Your task to perform on an android device: open app "Instagram" Image 0: 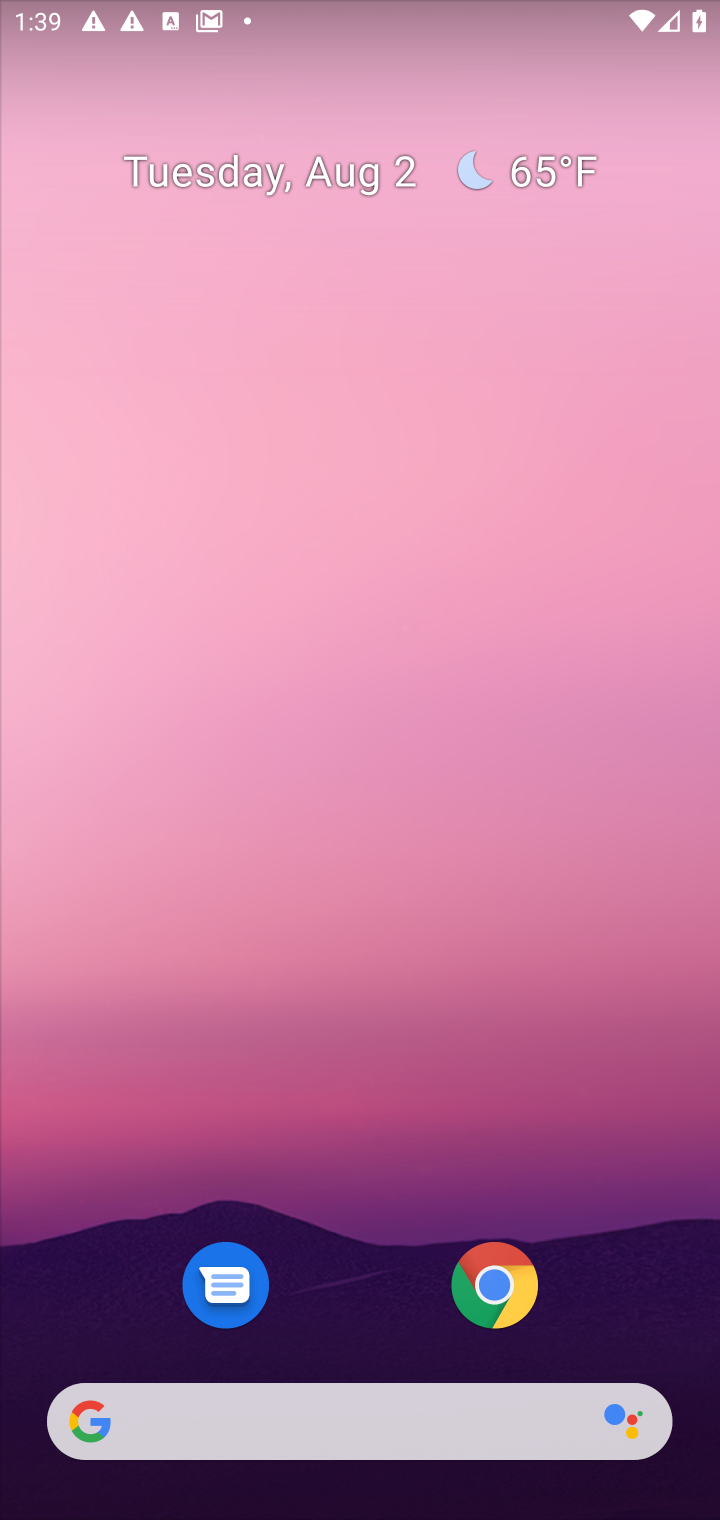
Step 0: press home button
Your task to perform on an android device: open app "Instagram" Image 1: 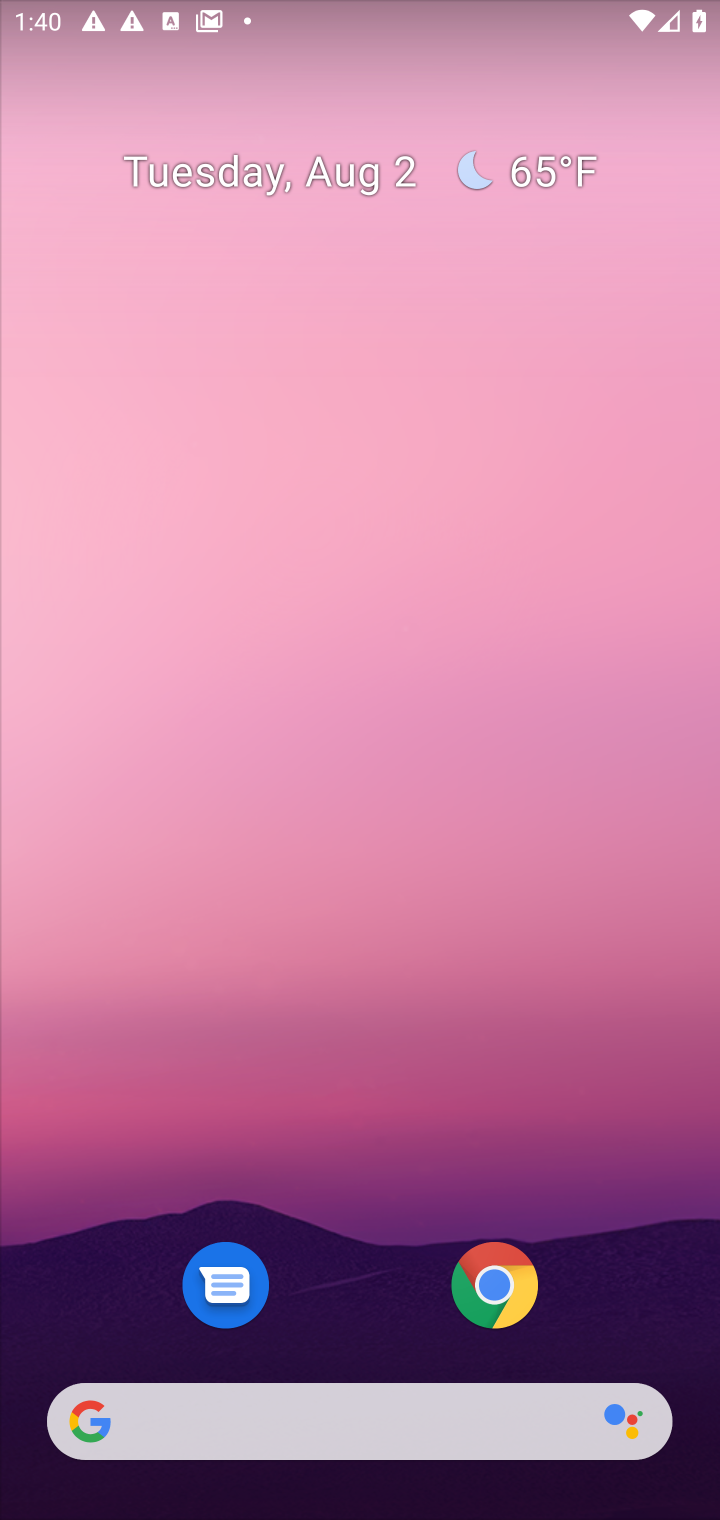
Step 1: drag from (399, 1279) to (492, 139)
Your task to perform on an android device: open app "Instagram" Image 2: 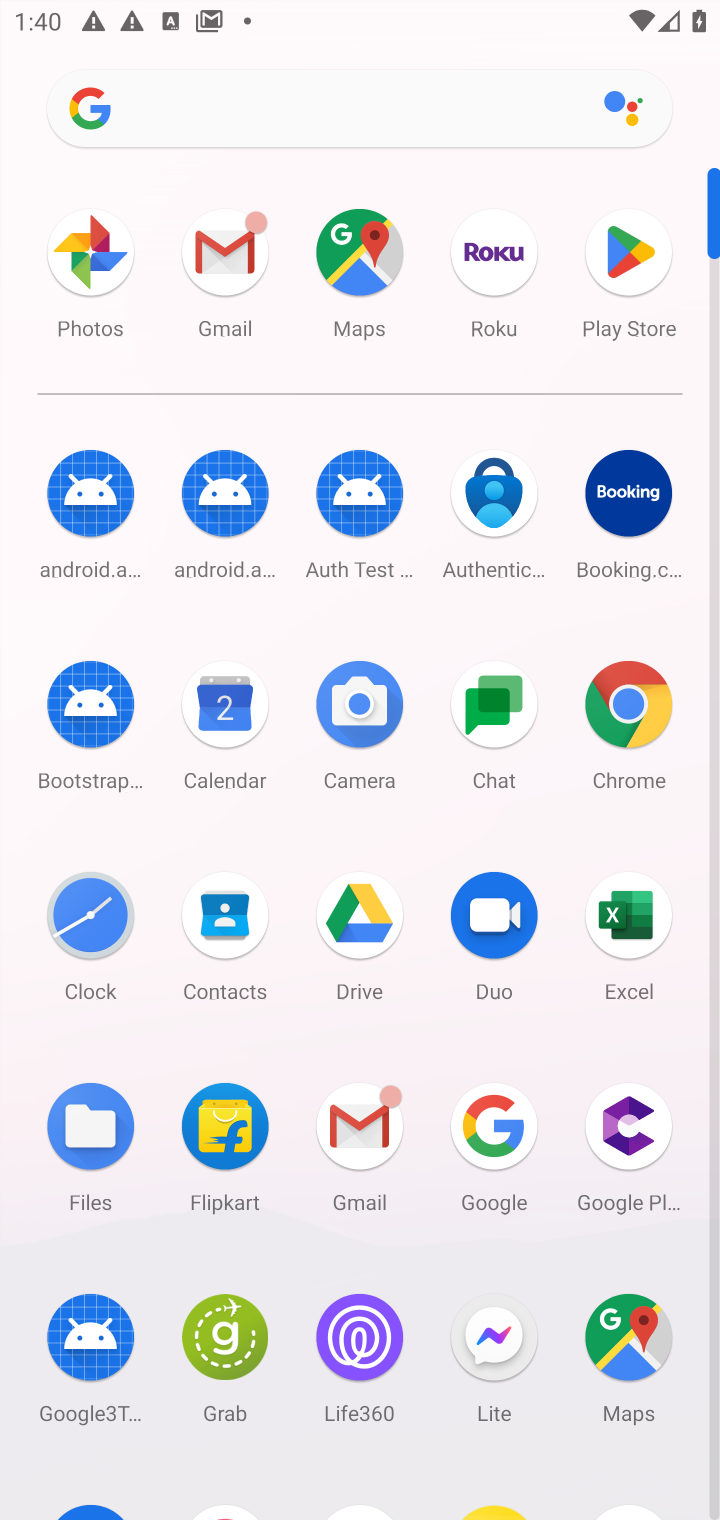
Step 2: drag from (434, 1217) to (516, 478)
Your task to perform on an android device: open app "Instagram" Image 3: 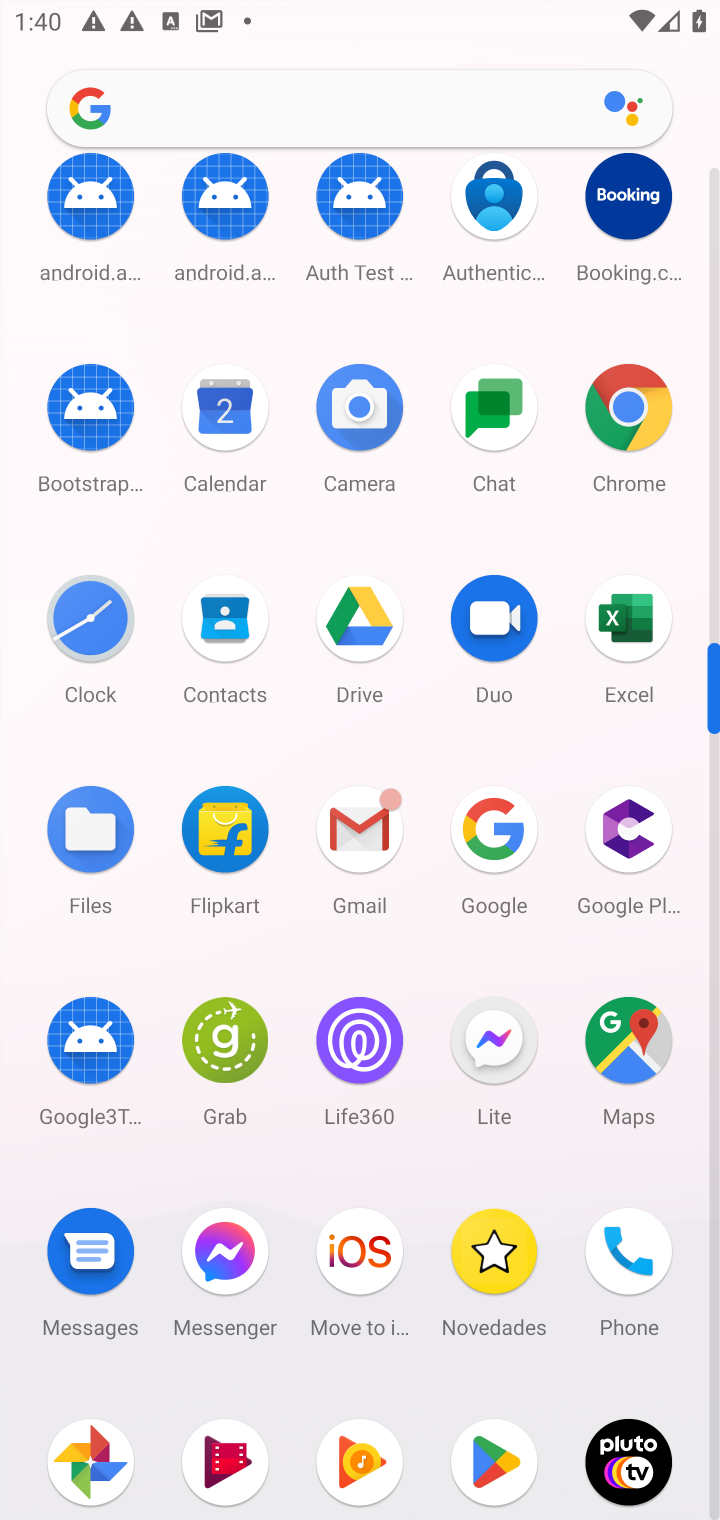
Step 3: click (499, 1462)
Your task to perform on an android device: open app "Instagram" Image 4: 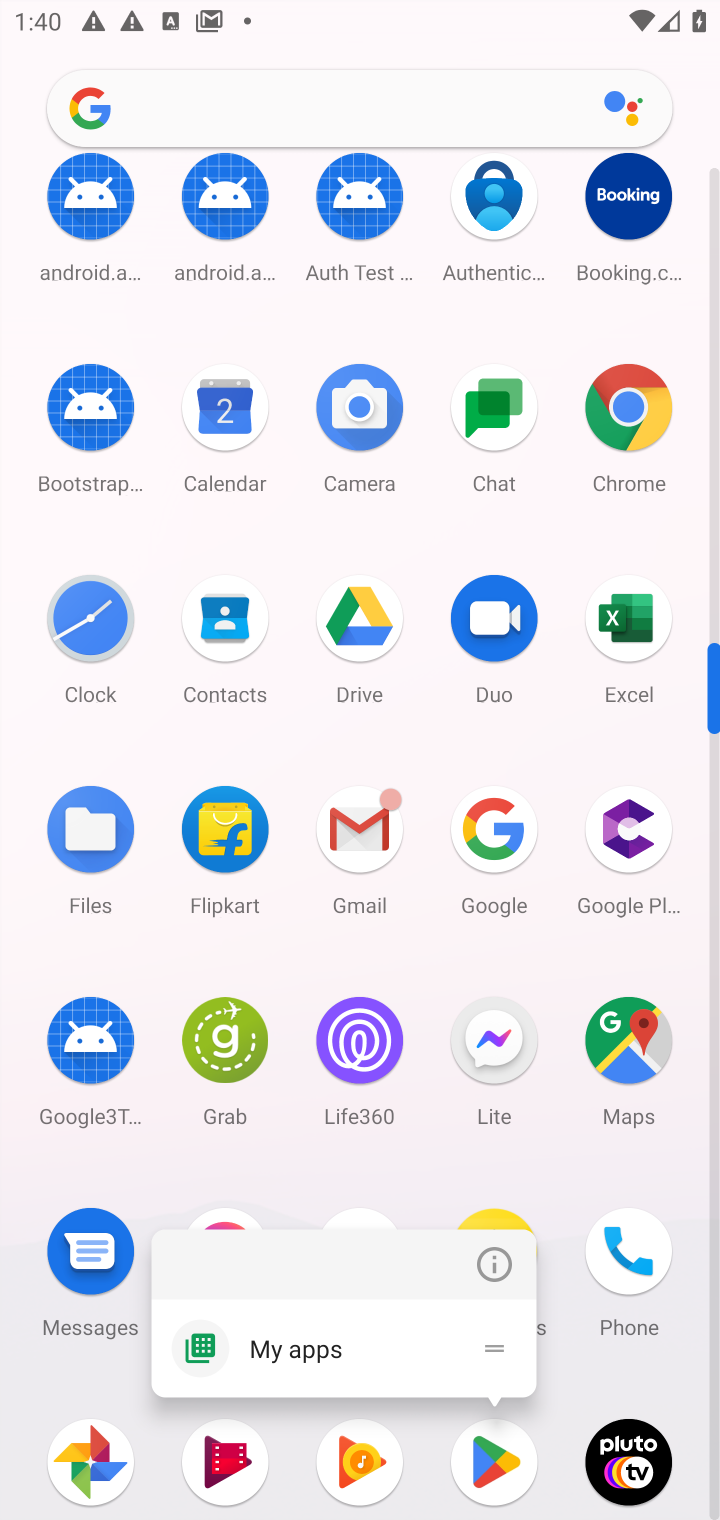
Step 4: click (490, 1476)
Your task to perform on an android device: open app "Instagram" Image 5: 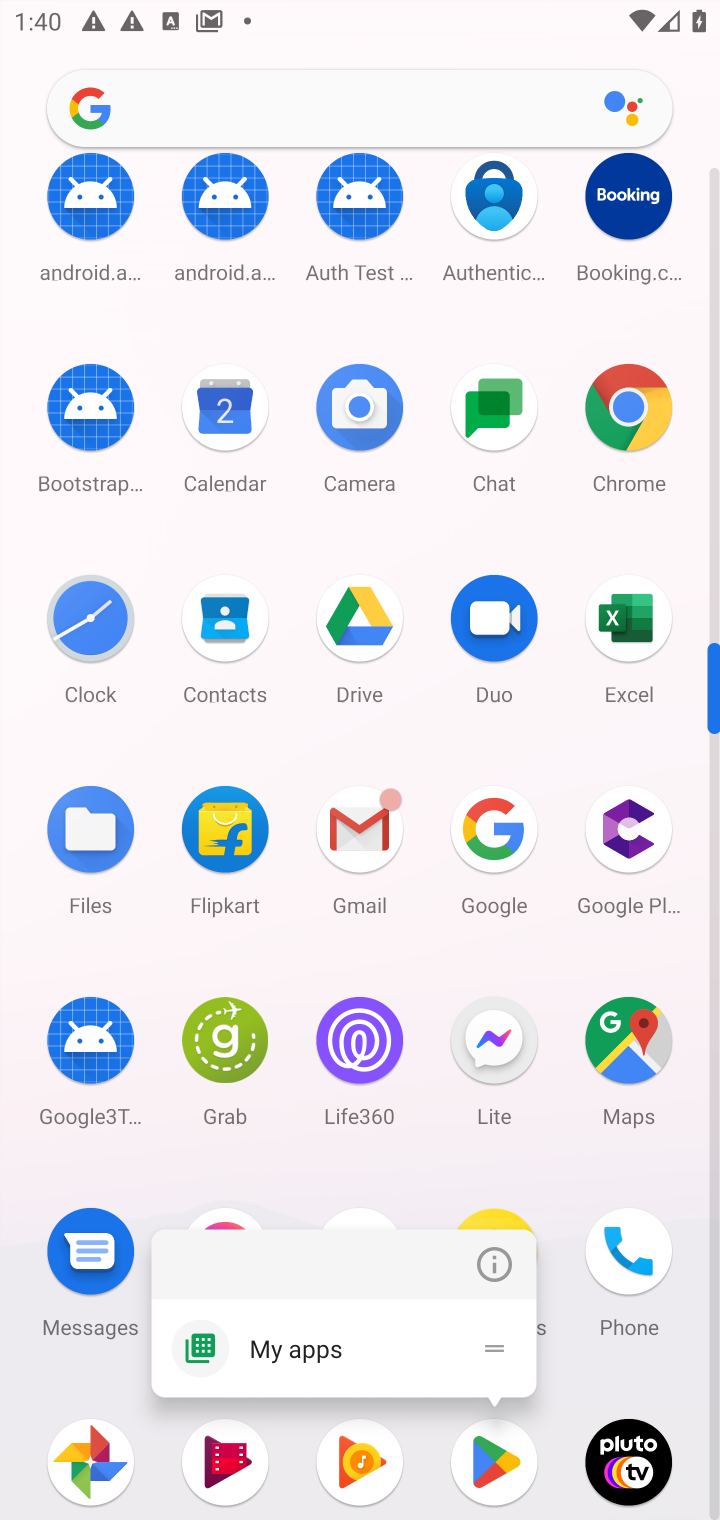
Step 5: click (494, 1467)
Your task to perform on an android device: open app "Instagram" Image 6: 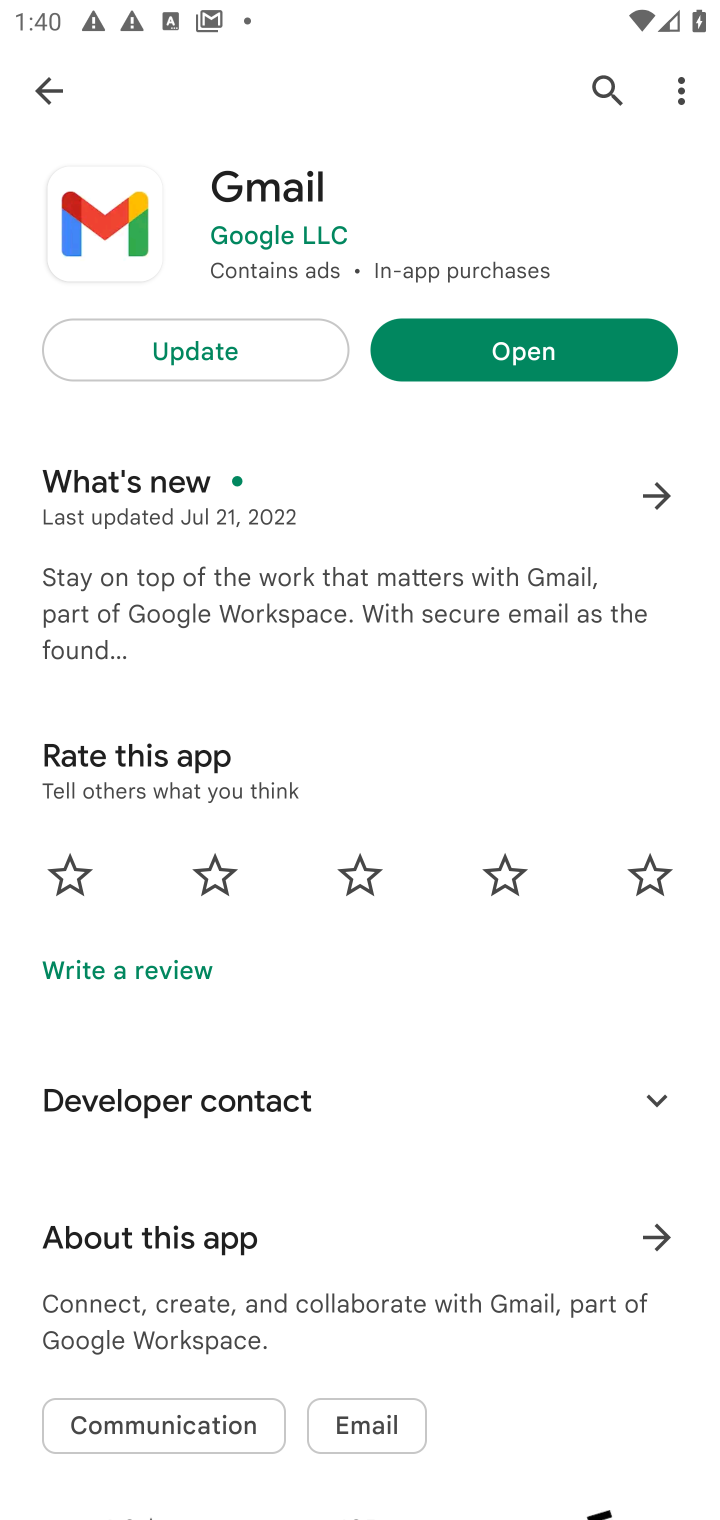
Step 6: click (619, 98)
Your task to perform on an android device: open app "Instagram" Image 7: 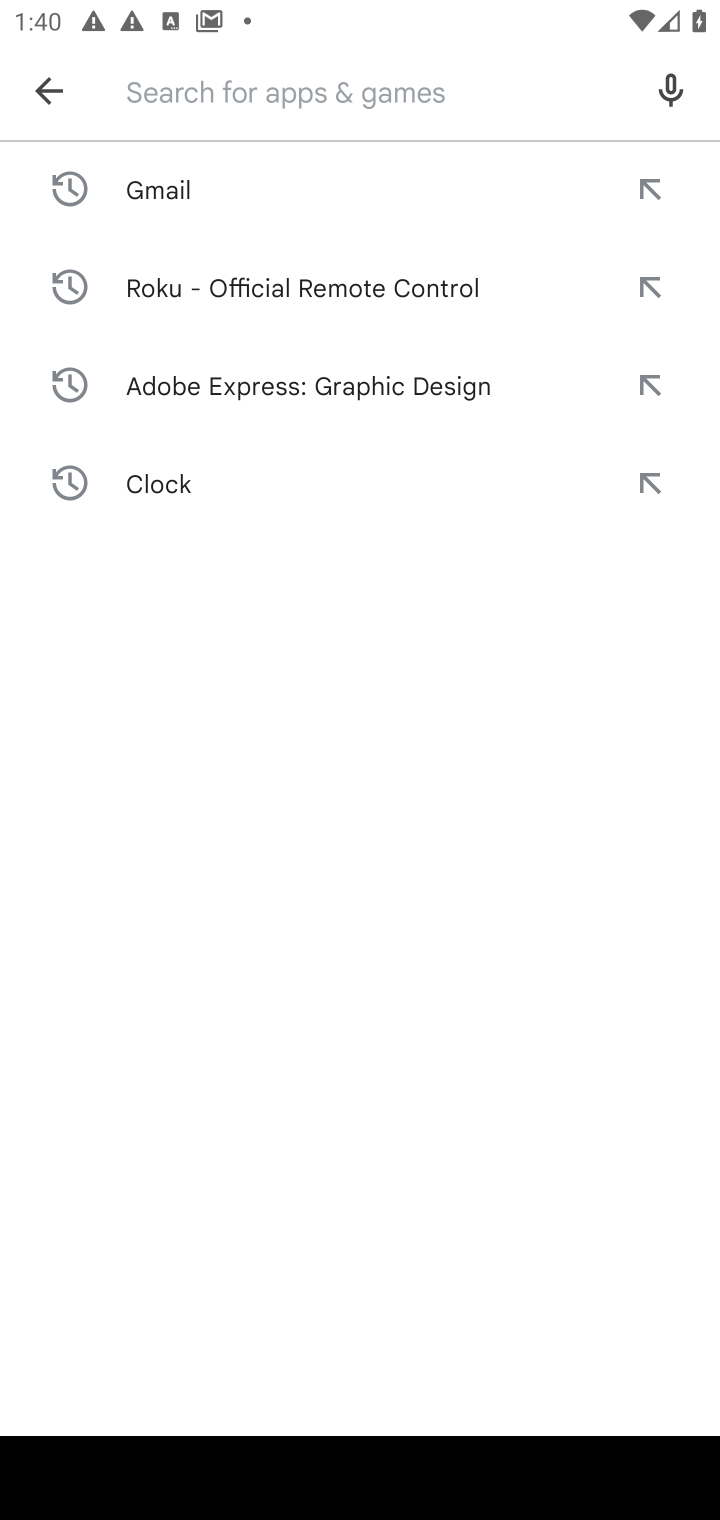
Step 7: type "Instagram"
Your task to perform on an android device: open app "Instagram" Image 8: 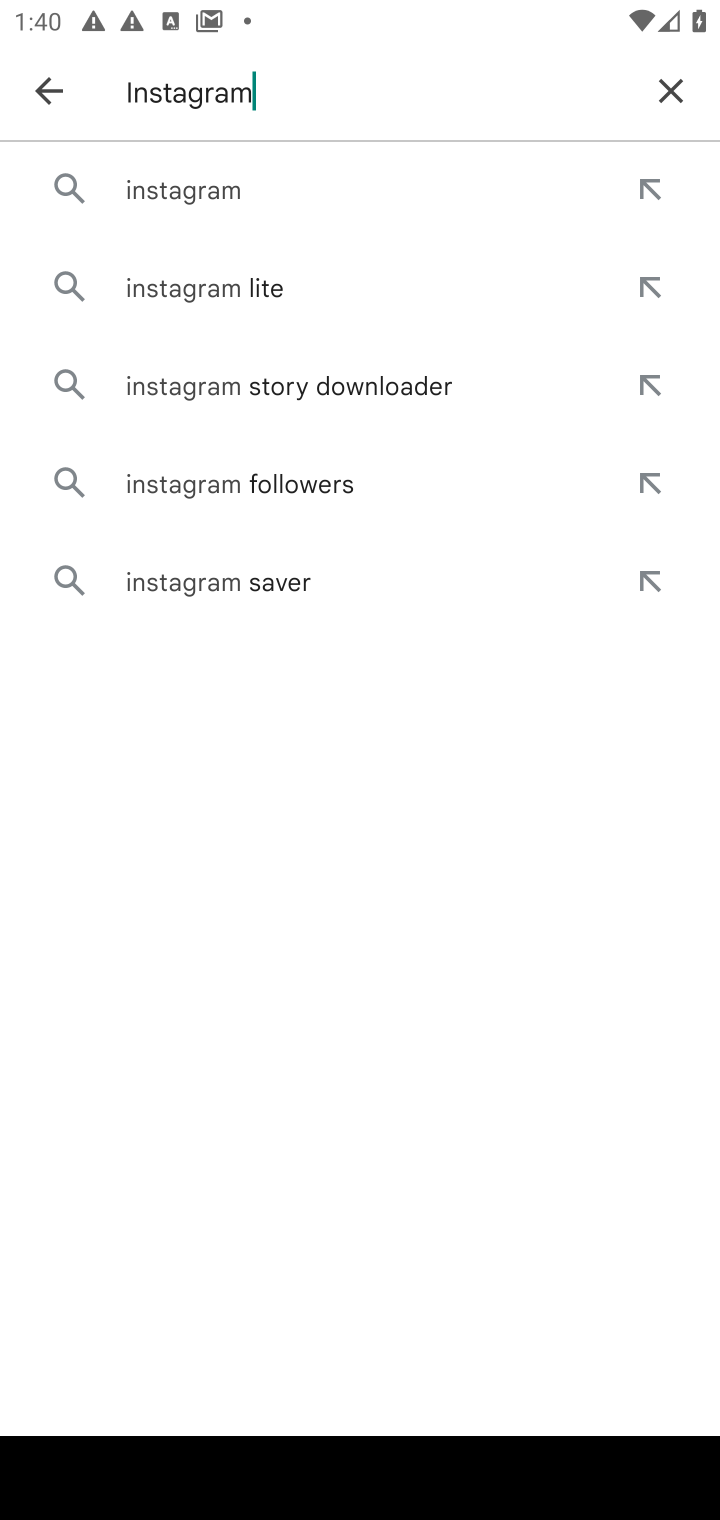
Step 8: press enter
Your task to perform on an android device: open app "Instagram" Image 9: 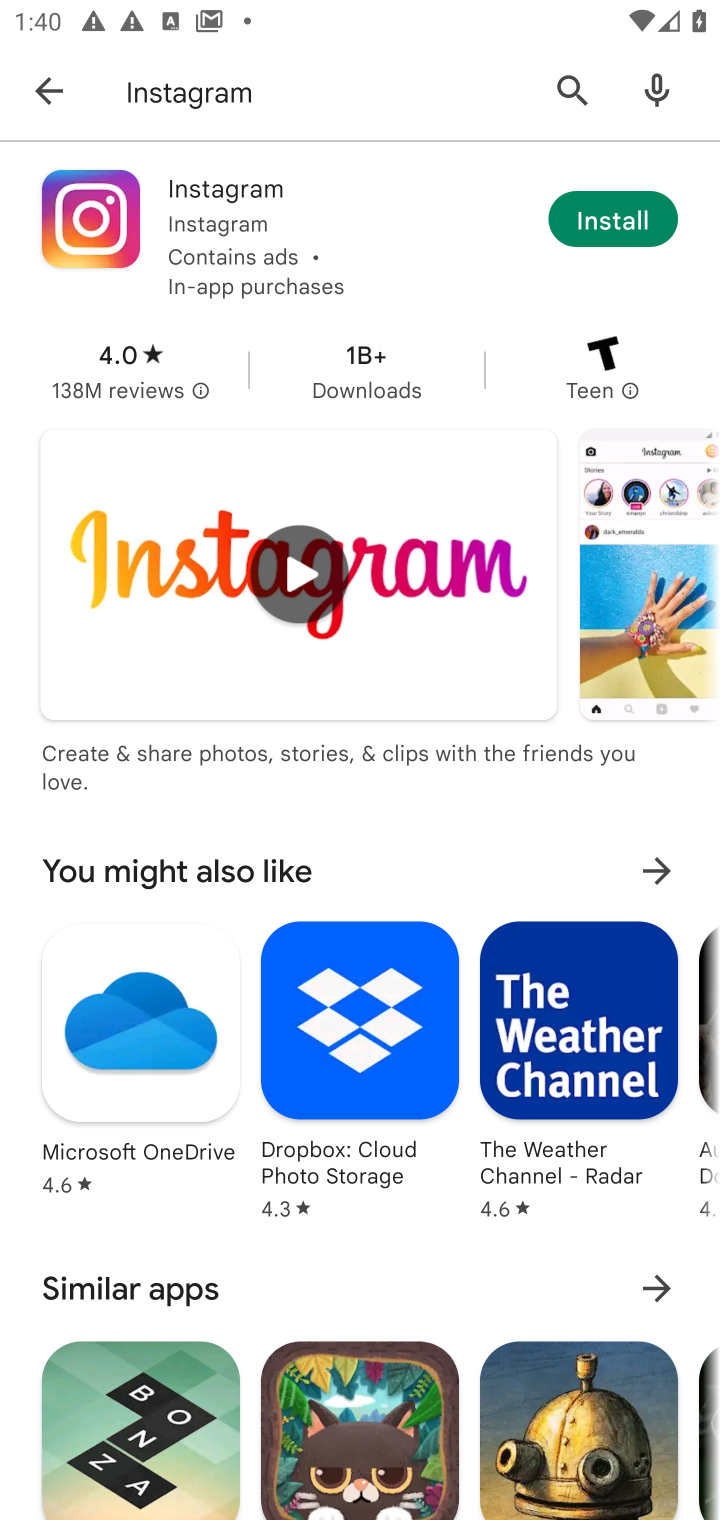
Step 9: task complete